Your task to perform on an android device: Open privacy settings Image 0: 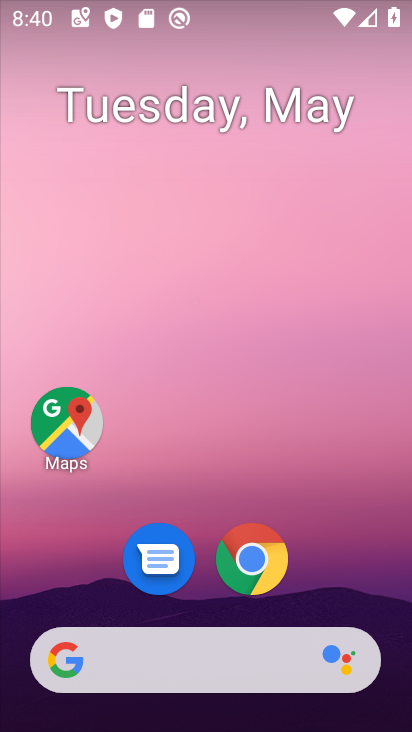
Step 0: drag from (251, 662) to (292, 161)
Your task to perform on an android device: Open privacy settings Image 1: 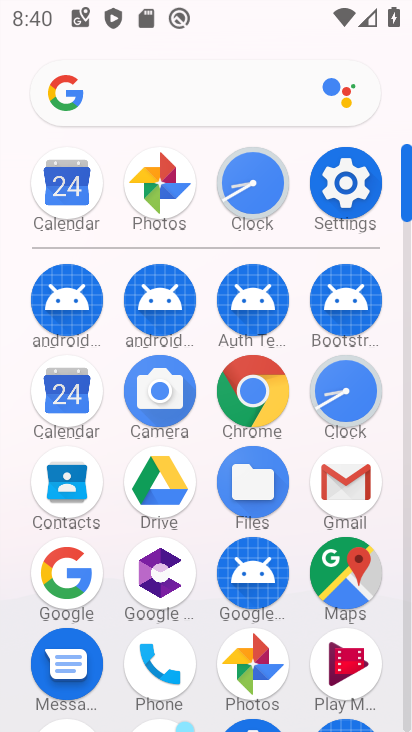
Step 1: click (329, 189)
Your task to perform on an android device: Open privacy settings Image 2: 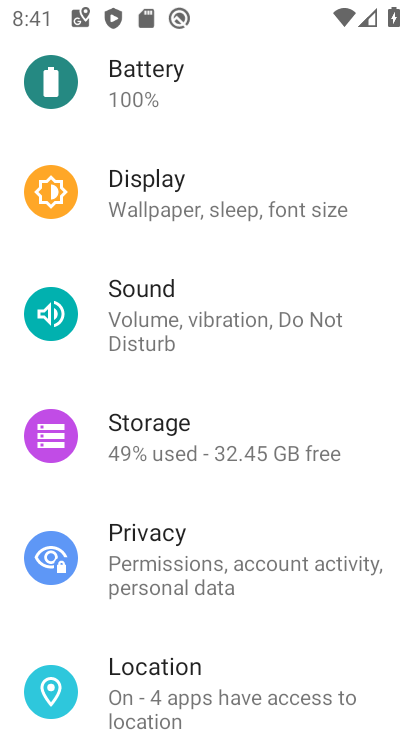
Step 2: click (188, 537)
Your task to perform on an android device: Open privacy settings Image 3: 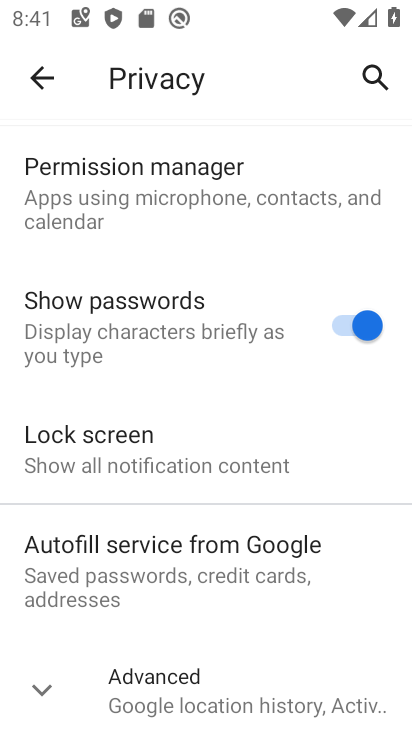
Step 3: task complete